Your task to perform on an android device: See recent photos Image 0: 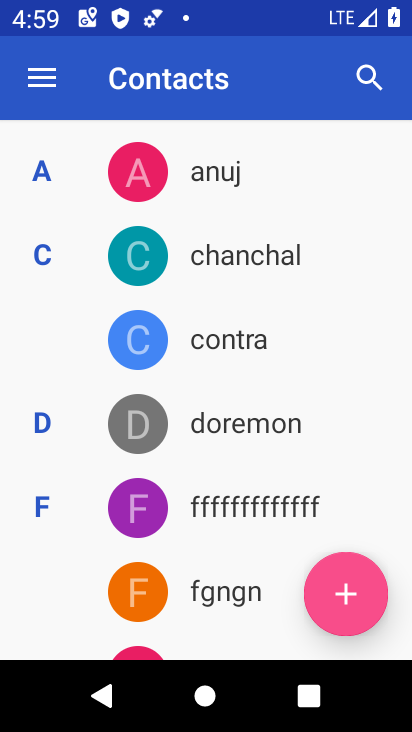
Step 0: press back button
Your task to perform on an android device: See recent photos Image 1: 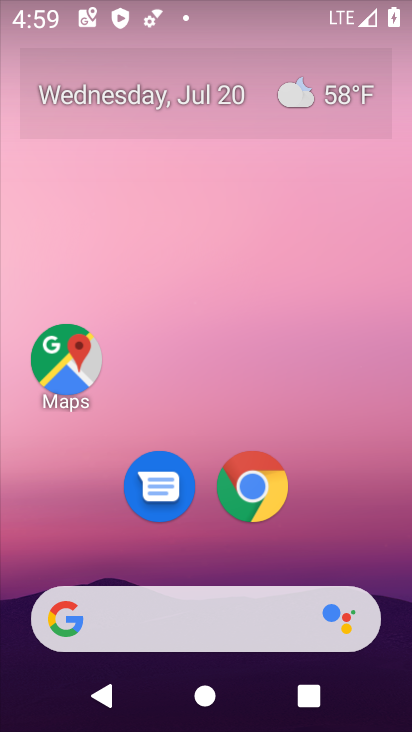
Step 1: drag from (247, 534) to (224, 4)
Your task to perform on an android device: See recent photos Image 2: 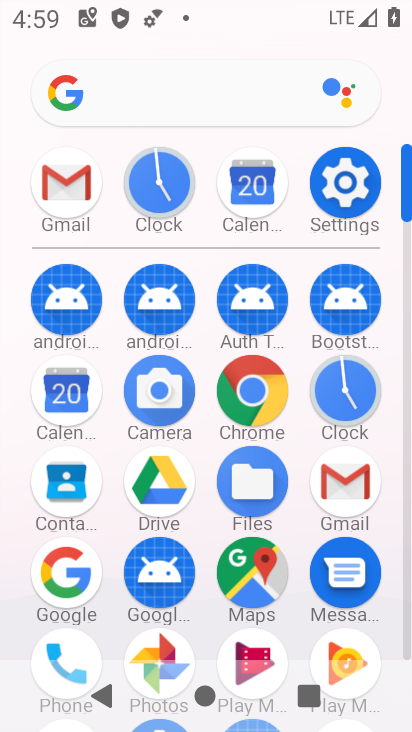
Step 2: click (154, 649)
Your task to perform on an android device: See recent photos Image 3: 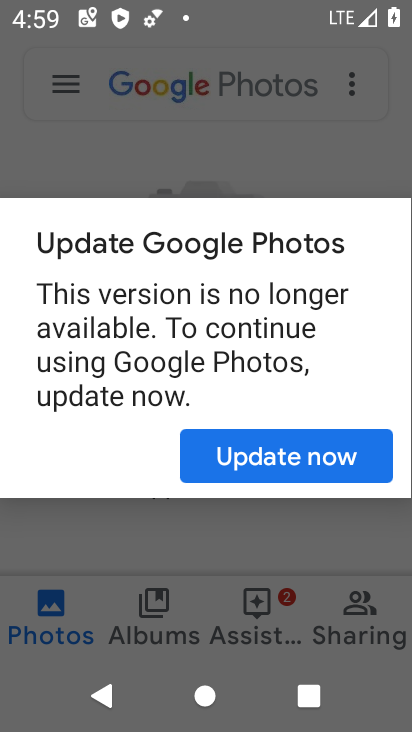
Step 3: click (296, 453)
Your task to perform on an android device: See recent photos Image 4: 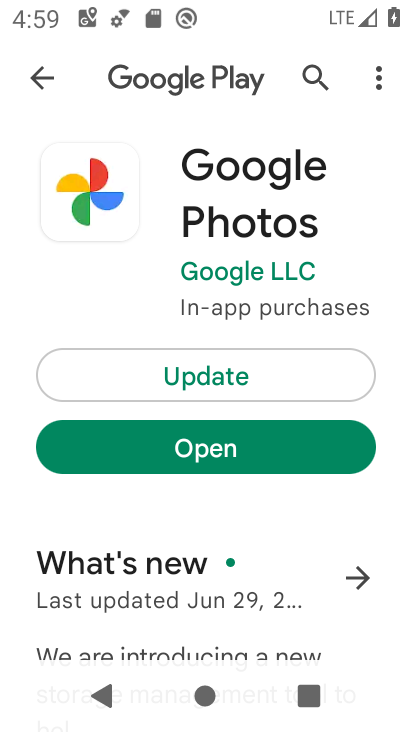
Step 4: click (244, 441)
Your task to perform on an android device: See recent photos Image 5: 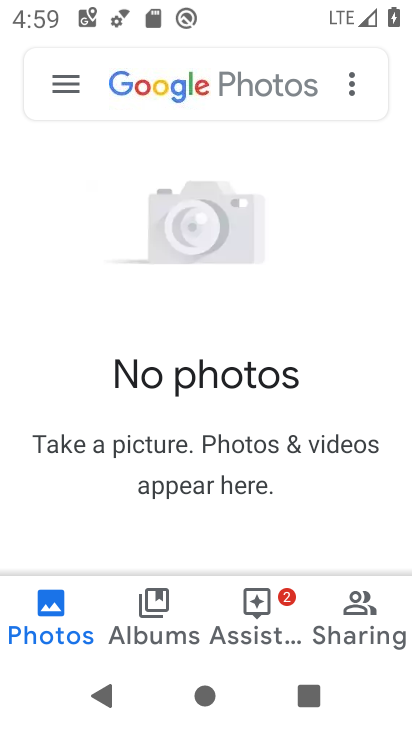
Step 5: click (50, 615)
Your task to perform on an android device: See recent photos Image 6: 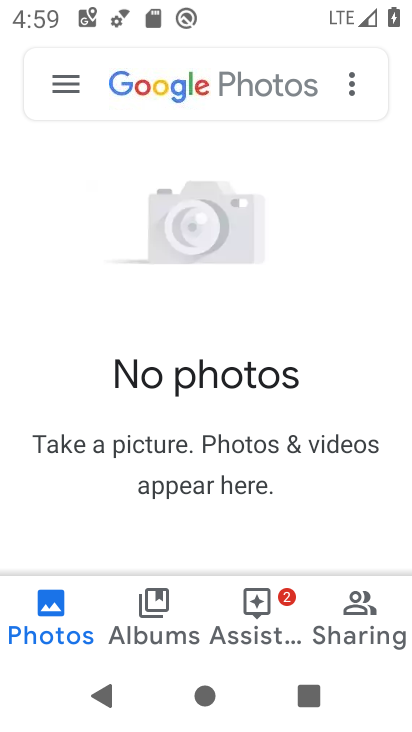
Step 6: task complete